Your task to perform on an android device: Open internet settings Image 0: 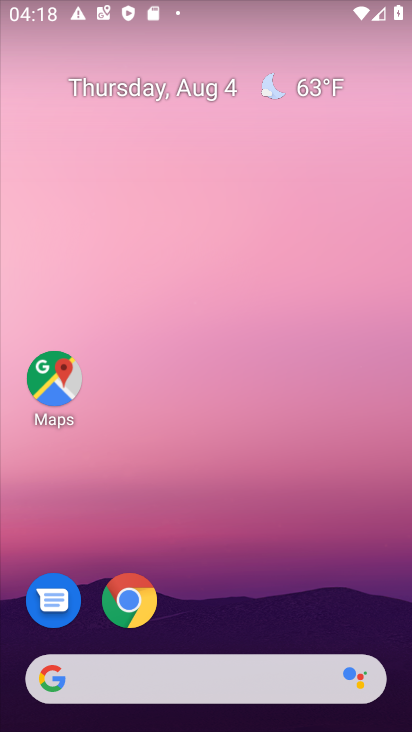
Step 0: drag from (288, 563) to (284, 128)
Your task to perform on an android device: Open internet settings Image 1: 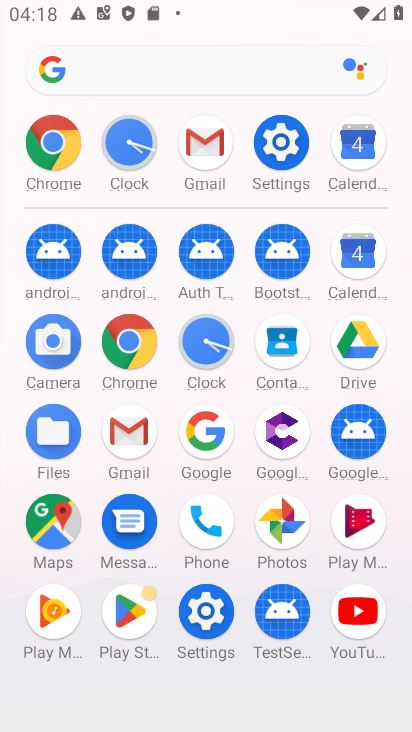
Step 1: click (273, 141)
Your task to perform on an android device: Open internet settings Image 2: 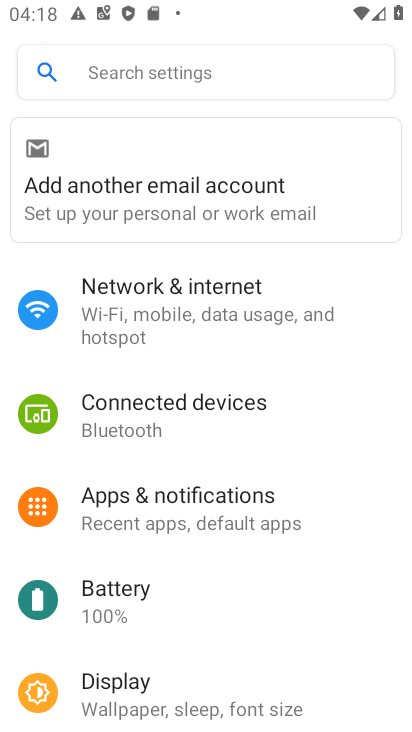
Step 2: click (180, 315)
Your task to perform on an android device: Open internet settings Image 3: 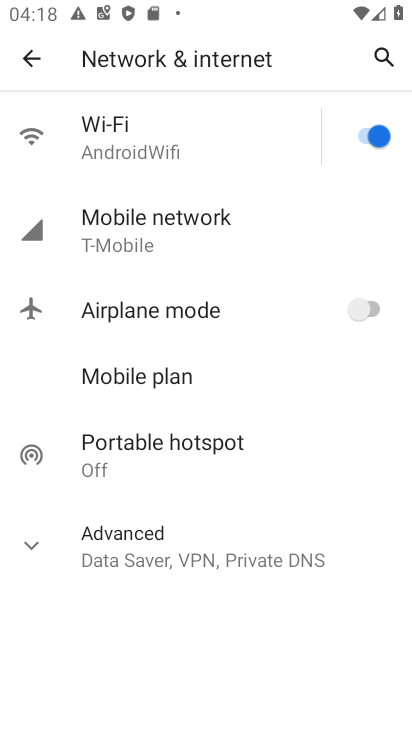
Step 3: click (161, 553)
Your task to perform on an android device: Open internet settings Image 4: 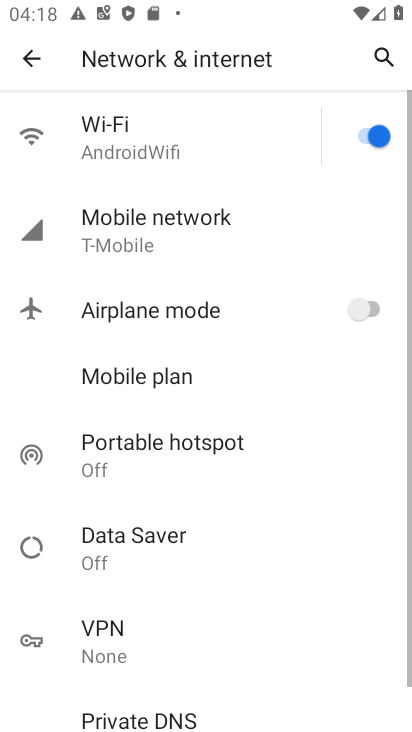
Step 4: task complete